Your task to perform on an android device: add a label to a message in the gmail app Image 0: 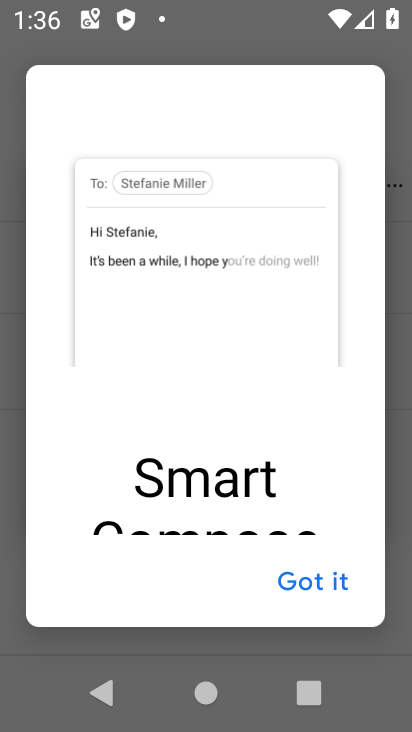
Step 0: press home button
Your task to perform on an android device: add a label to a message in the gmail app Image 1: 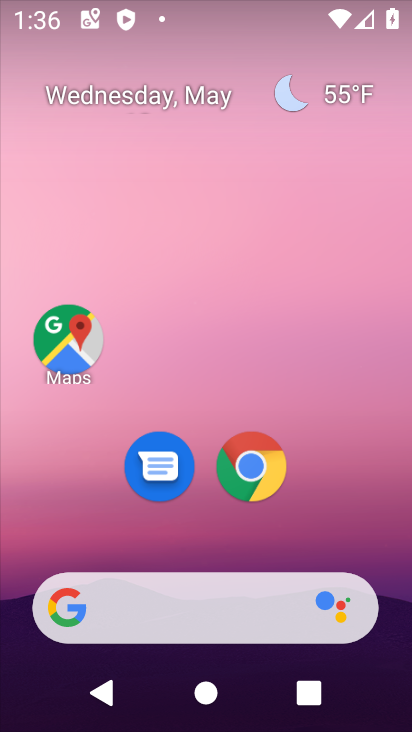
Step 1: drag from (243, 542) to (204, 4)
Your task to perform on an android device: add a label to a message in the gmail app Image 2: 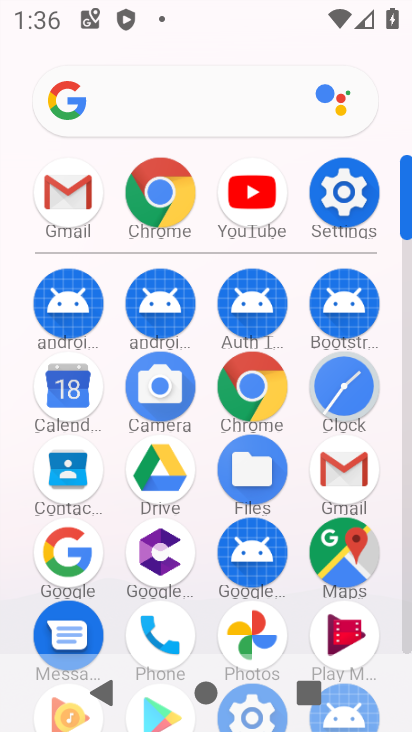
Step 2: click (334, 466)
Your task to perform on an android device: add a label to a message in the gmail app Image 3: 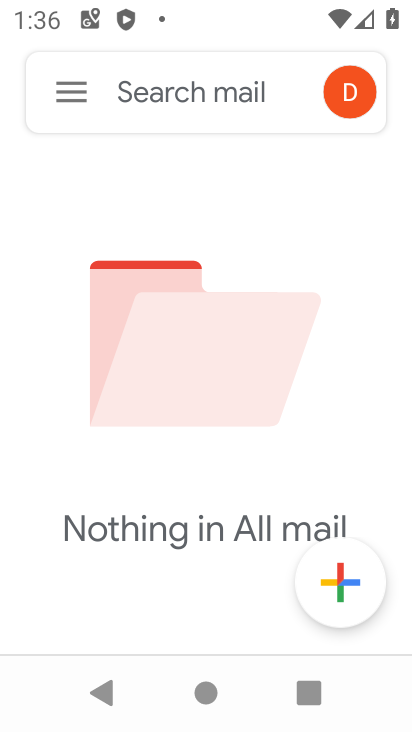
Step 3: click (85, 88)
Your task to perform on an android device: add a label to a message in the gmail app Image 4: 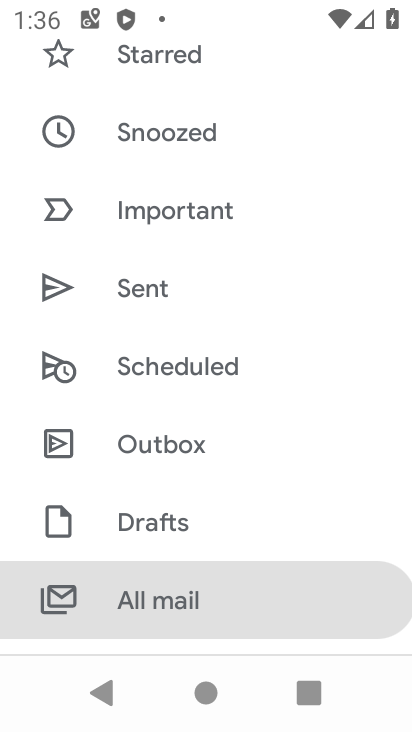
Step 4: drag from (151, 522) to (130, 99)
Your task to perform on an android device: add a label to a message in the gmail app Image 5: 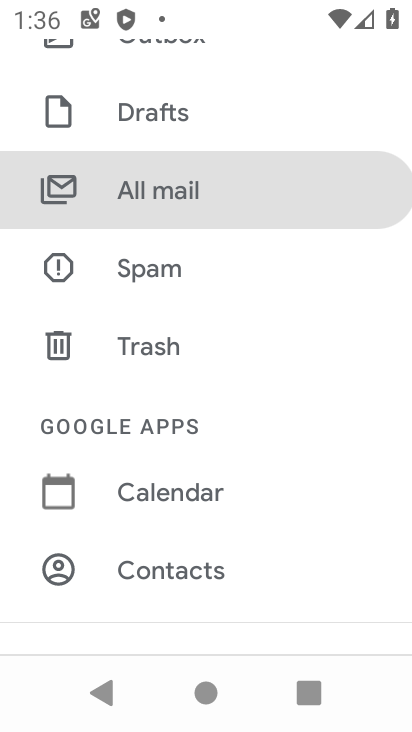
Step 5: drag from (192, 455) to (140, 188)
Your task to perform on an android device: add a label to a message in the gmail app Image 6: 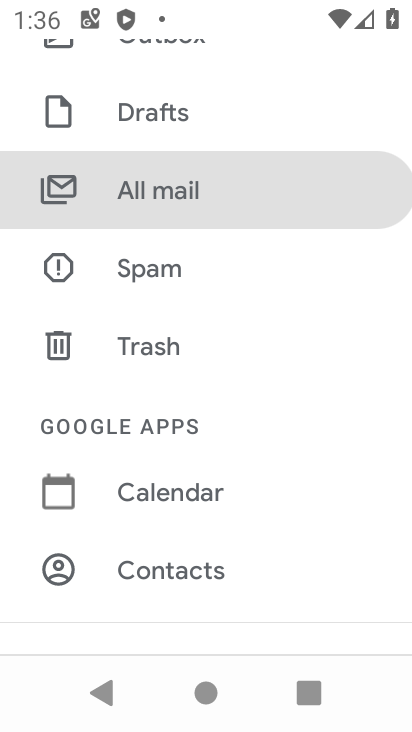
Step 6: click (121, 187)
Your task to perform on an android device: add a label to a message in the gmail app Image 7: 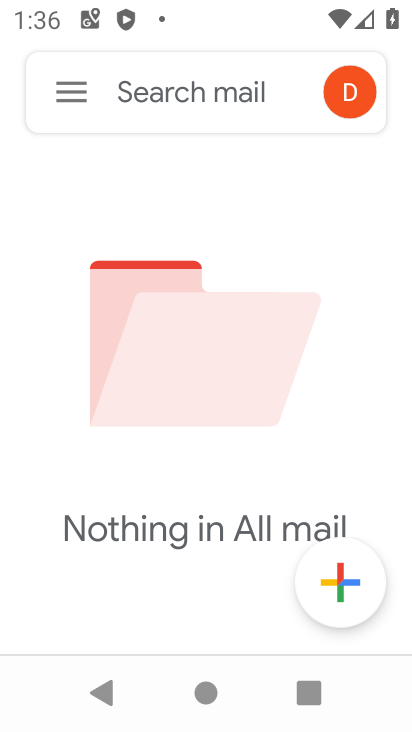
Step 7: task complete